Your task to perform on an android device: make emails show in primary in the gmail app Image 0: 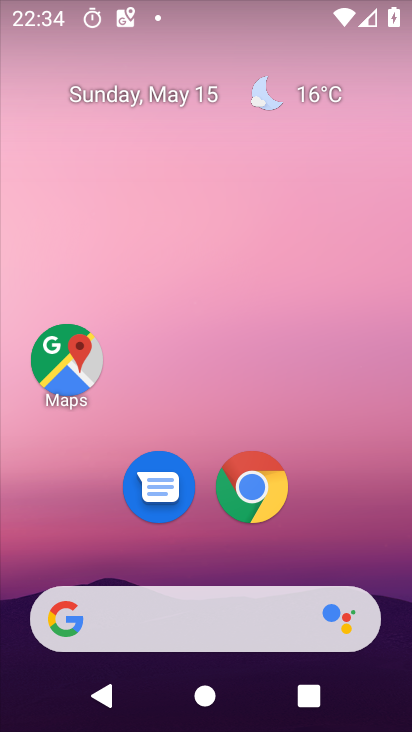
Step 0: drag from (371, 609) to (299, 427)
Your task to perform on an android device: make emails show in primary in the gmail app Image 1: 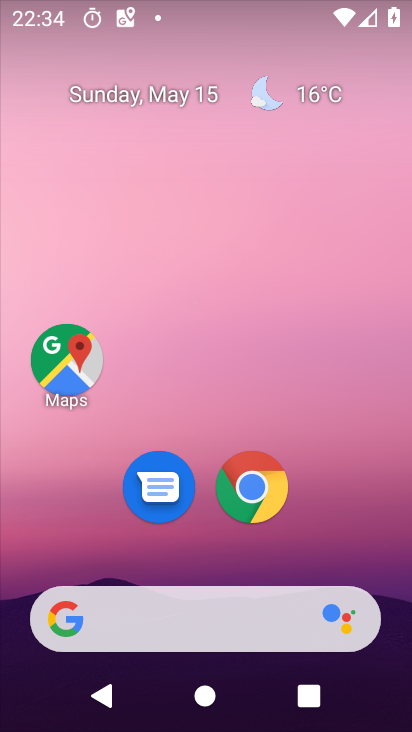
Step 1: drag from (361, 554) to (206, 7)
Your task to perform on an android device: make emails show in primary in the gmail app Image 2: 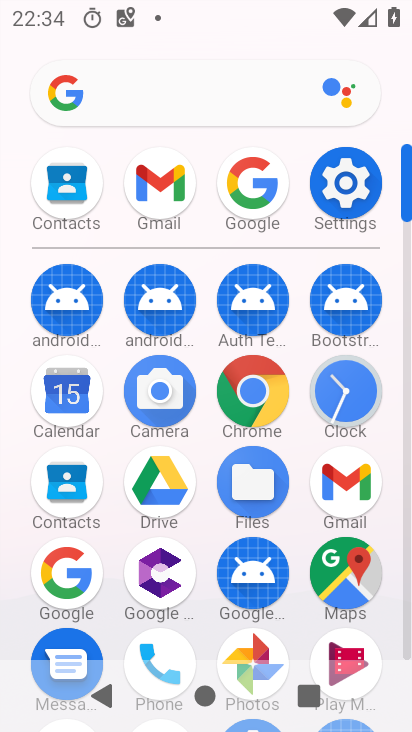
Step 2: click (319, 481)
Your task to perform on an android device: make emails show in primary in the gmail app Image 3: 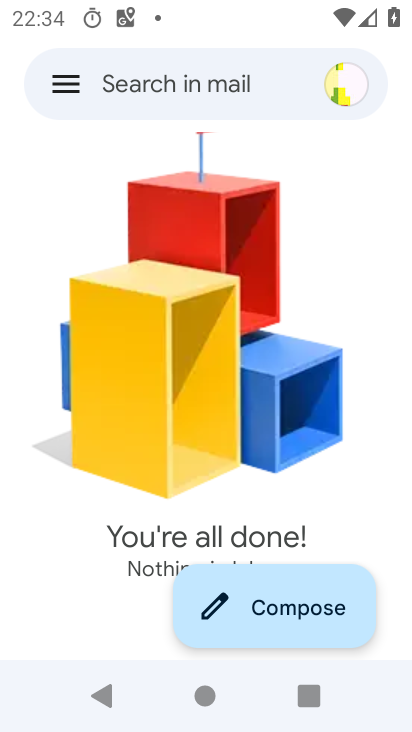
Step 3: click (60, 79)
Your task to perform on an android device: make emails show in primary in the gmail app Image 4: 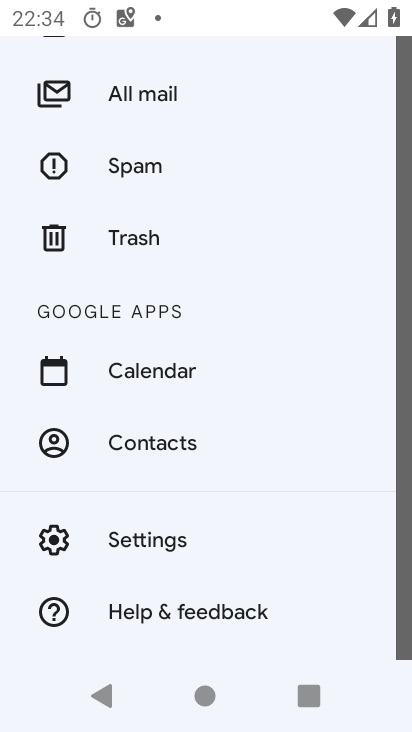
Step 4: click (181, 534)
Your task to perform on an android device: make emails show in primary in the gmail app Image 5: 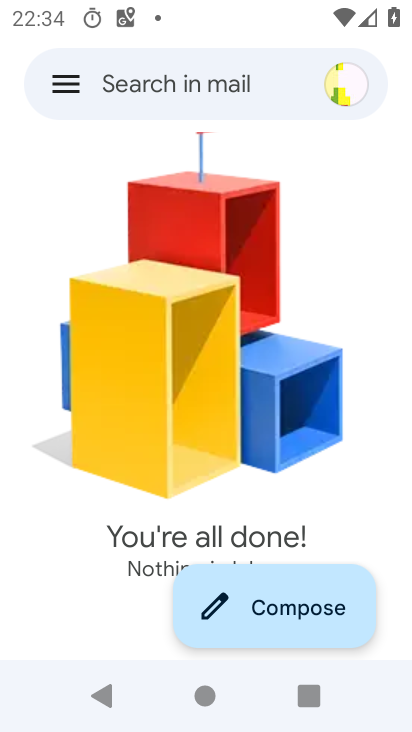
Step 5: click (169, 544)
Your task to perform on an android device: make emails show in primary in the gmail app Image 6: 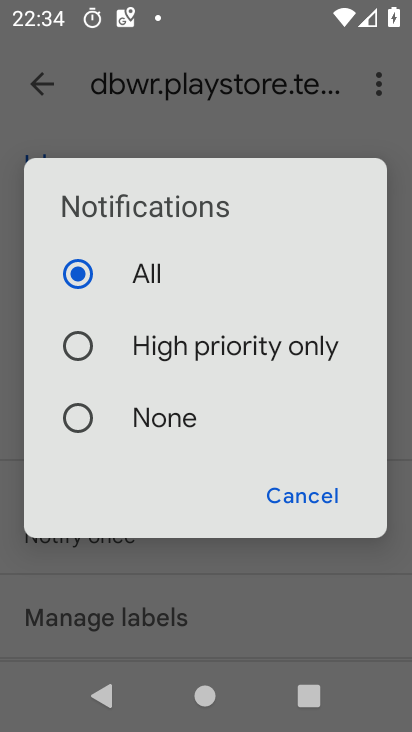
Step 6: click (308, 500)
Your task to perform on an android device: make emails show in primary in the gmail app Image 7: 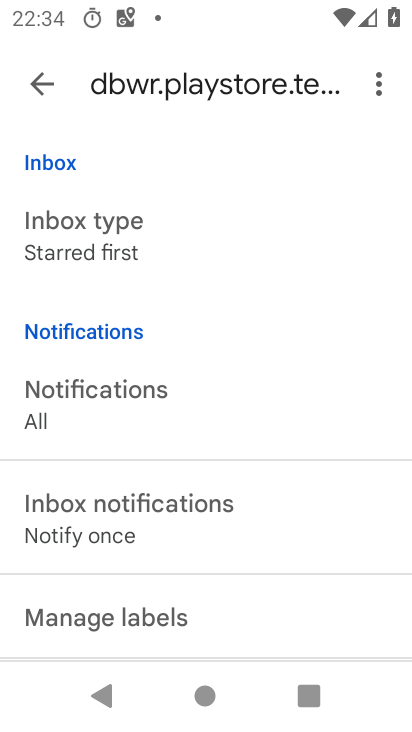
Step 7: click (44, 86)
Your task to perform on an android device: make emails show in primary in the gmail app Image 8: 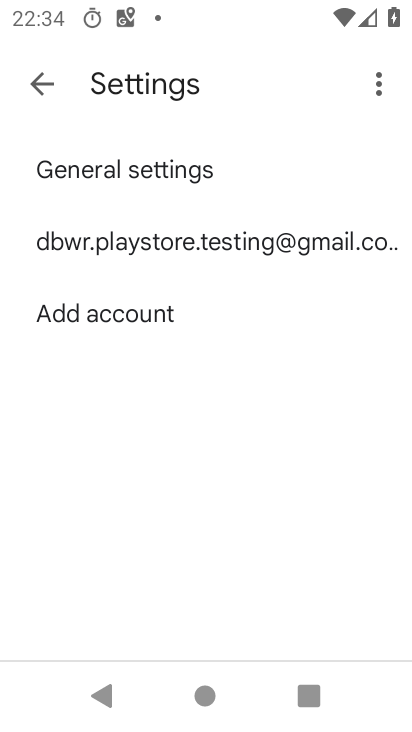
Step 8: click (189, 237)
Your task to perform on an android device: make emails show in primary in the gmail app Image 9: 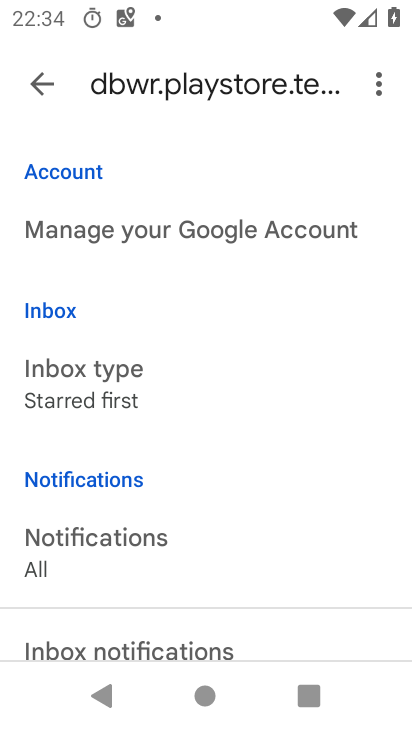
Step 9: click (89, 387)
Your task to perform on an android device: make emails show in primary in the gmail app Image 10: 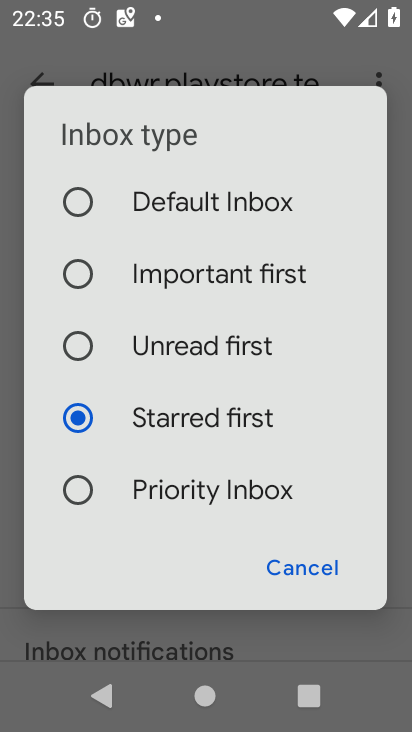
Step 10: click (85, 203)
Your task to perform on an android device: make emails show in primary in the gmail app Image 11: 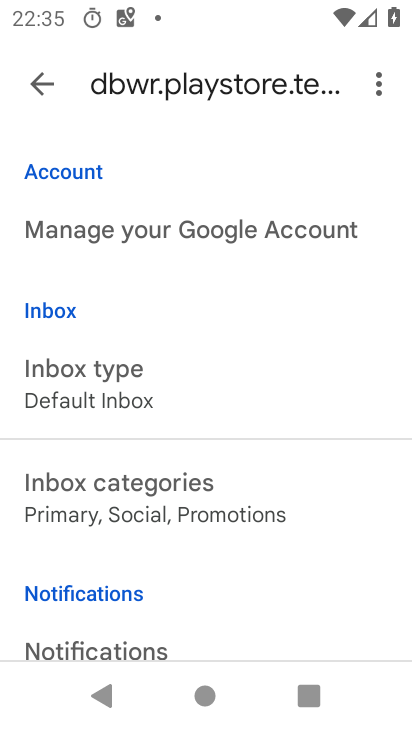
Step 11: click (70, 503)
Your task to perform on an android device: make emails show in primary in the gmail app Image 12: 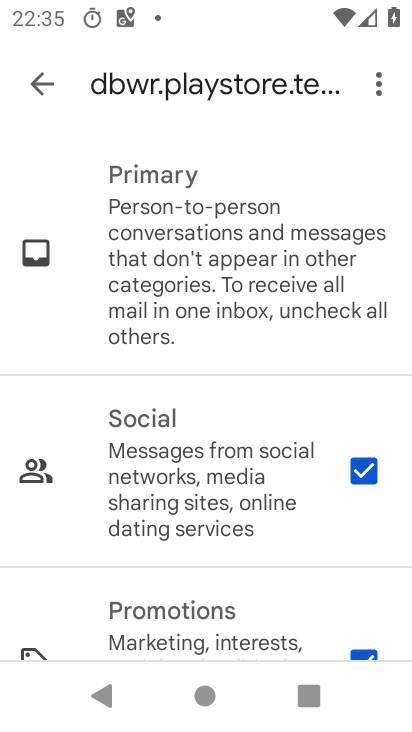
Step 12: drag from (257, 561) to (267, 453)
Your task to perform on an android device: make emails show in primary in the gmail app Image 13: 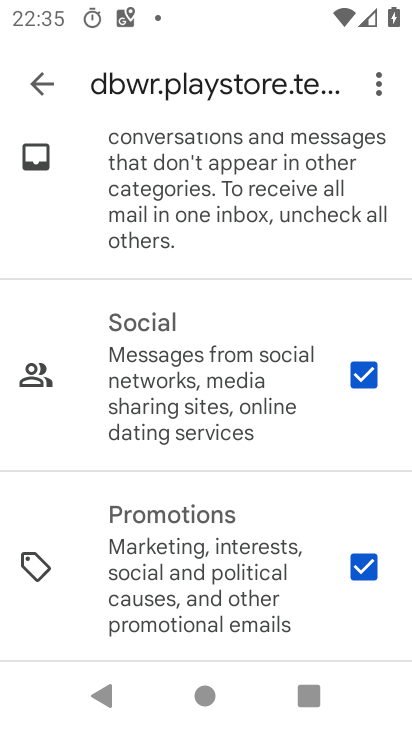
Step 13: click (373, 373)
Your task to perform on an android device: make emails show in primary in the gmail app Image 14: 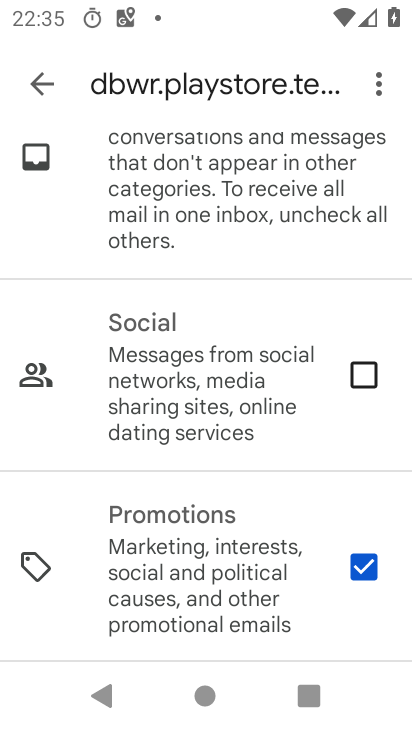
Step 14: click (365, 565)
Your task to perform on an android device: make emails show in primary in the gmail app Image 15: 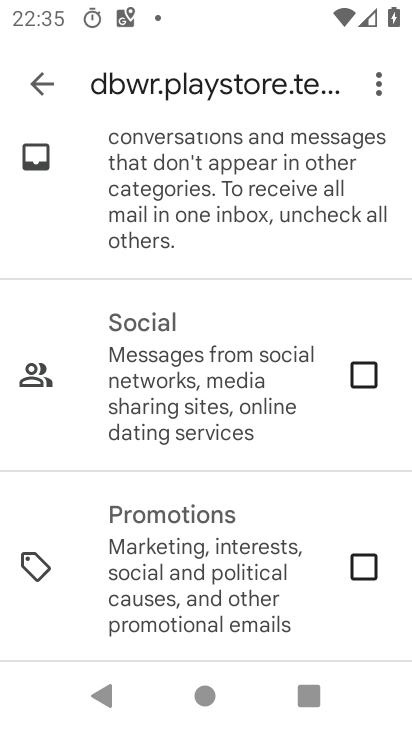
Step 15: click (37, 82)
Your task to perform on an android device: make emails show in primary in the gmail app Image 16: 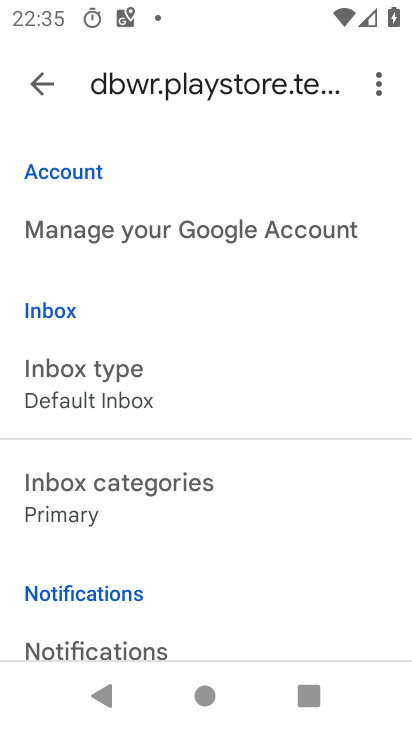
Step 16: task complete